Your task to perform on an android device: allow notifications from all sites in the chrome app Image 0: 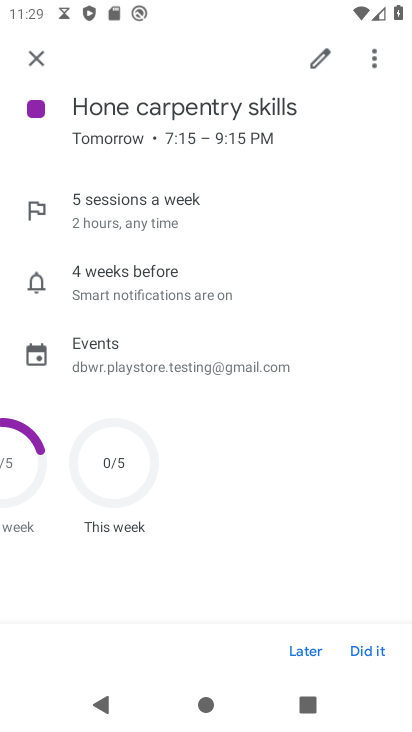
Step 0: press home button
Your task to perform on an android device: allow notifications from all sites in the chrome app Image 1: 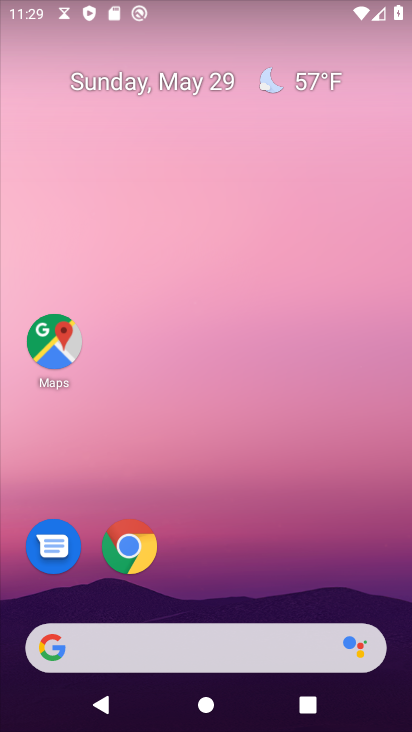
Step 1: click (130, 565)
Your task to perform on an android device: allow notifications from all sites in the chrome app Image 2: 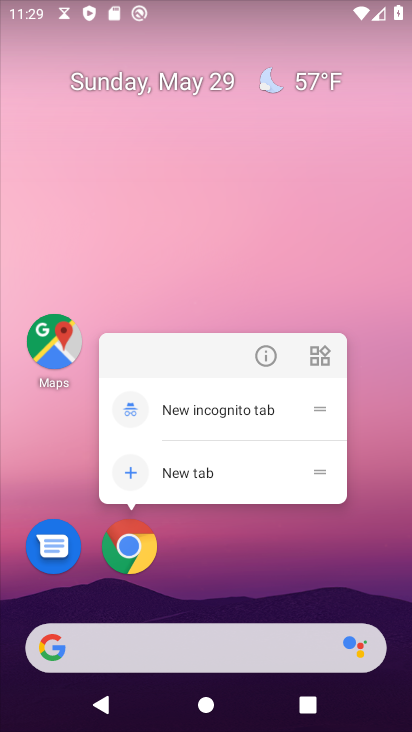
Step 2: click (128, 547)
Your task to perform on an android device: allow notifications from all sites in the chrome app Image 3: 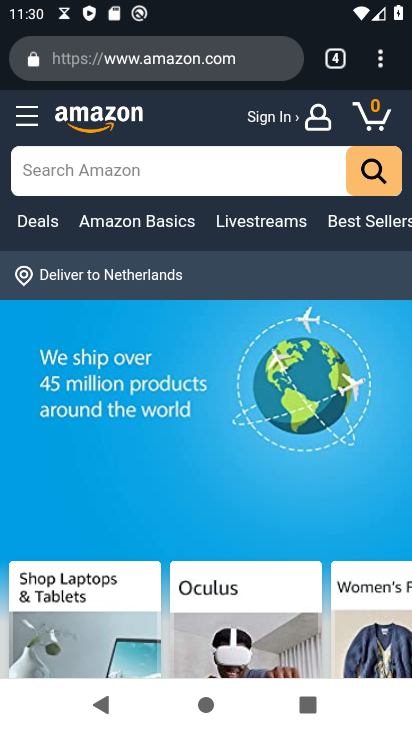
Step 3: drag from (377, 60) to (224, 584)
Your task to perform on an android device: allow notifications from all sites in the chrome app Image 4: 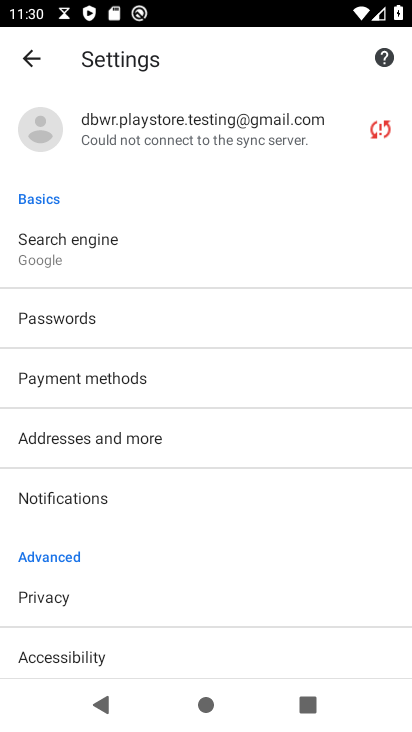
Step 4: drag from (143, 650) to (239, 195)
Your task to perform on an android device: allow notifications from all sites in the chrome app Image 5: 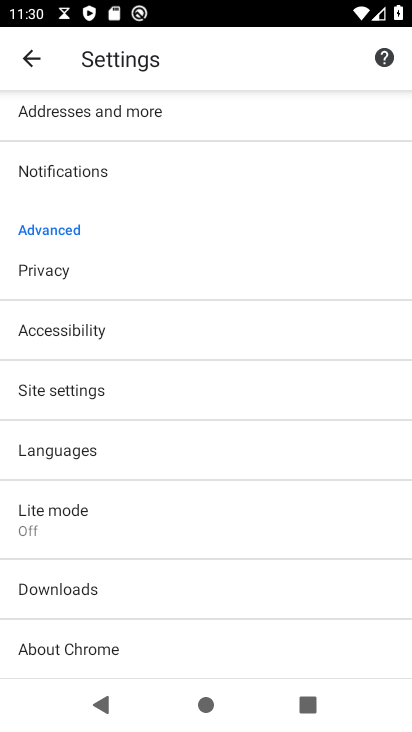
Step 5: click (81, 384)
Your task to perform on an android device: allow notifications from all sites in the chrome app Image 6: 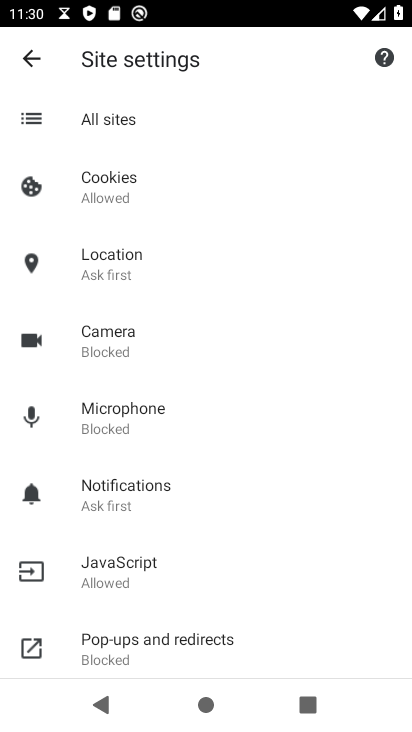
Step 6: click (163, 503)
Your task to perform on an android device: allow notifications from all sites in the chrome app Image 7: 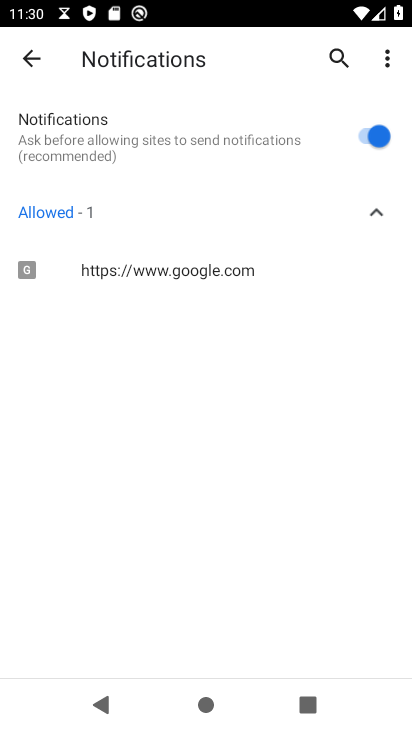
Step 7: task complete